Your task to perform on an android device: turn on wifi Image 0: 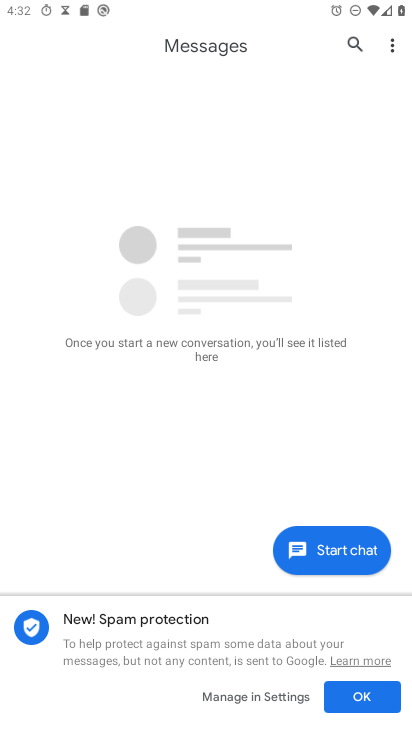
Step 0: press home button
Your task to perform on an android device: turn on wifi Image 1: 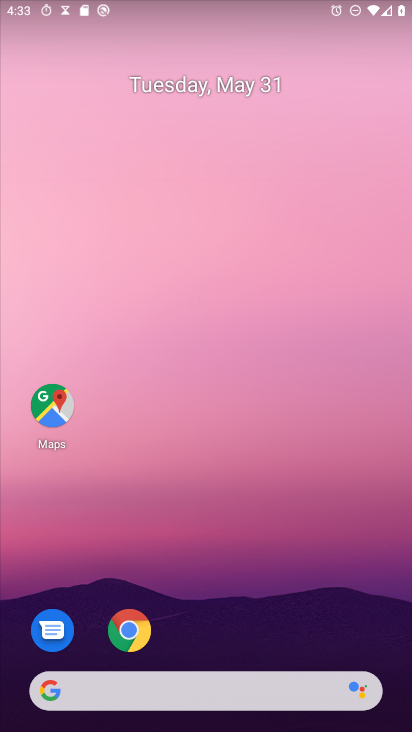
Step 1: drag from (295, 694) to (250, 113)
Your task to perform on an android device: turn on wifi Image 2: 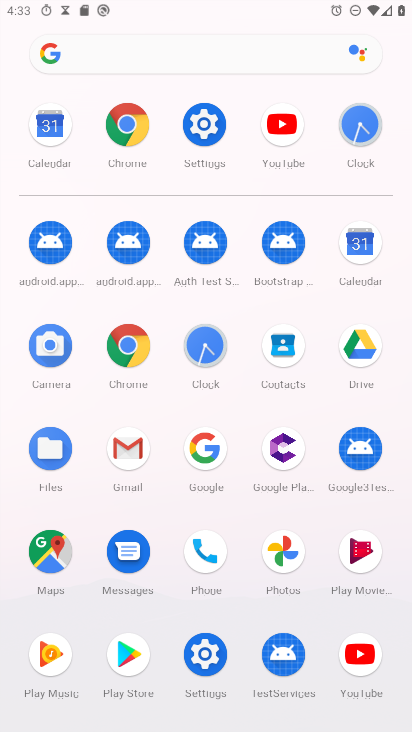
Step 2: click (205, 132)
Your task to perform on an android device: turn on wifi Image 3: 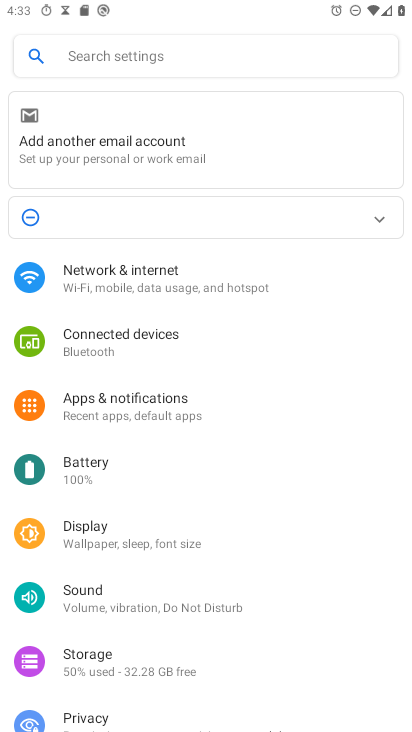
Step 3: click (123, 264)
Your task to perform on an android device: turn on wifi Image 4: 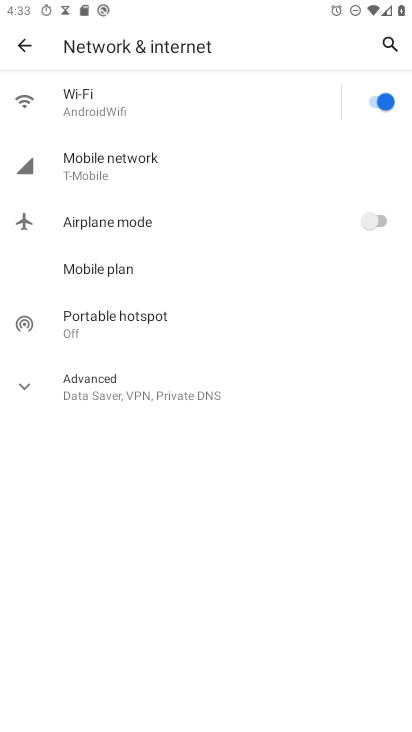
Step 4: click (178, 105)
Your task to perform on an android device: turn on wifi Image 5: 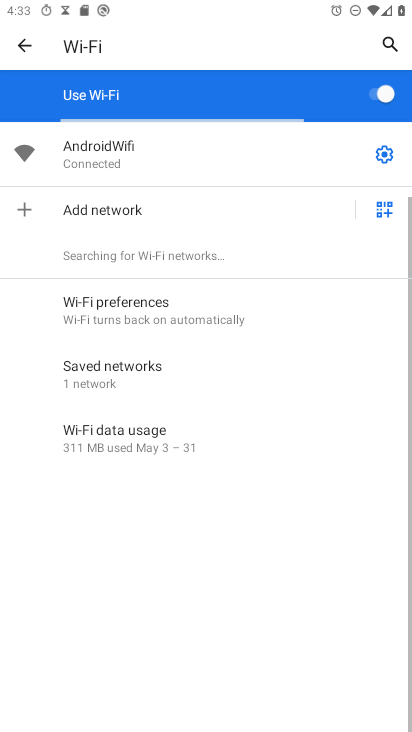
Step 5: task complete